Your task to perform on an android device: turn off improve location accuracy Image 0: 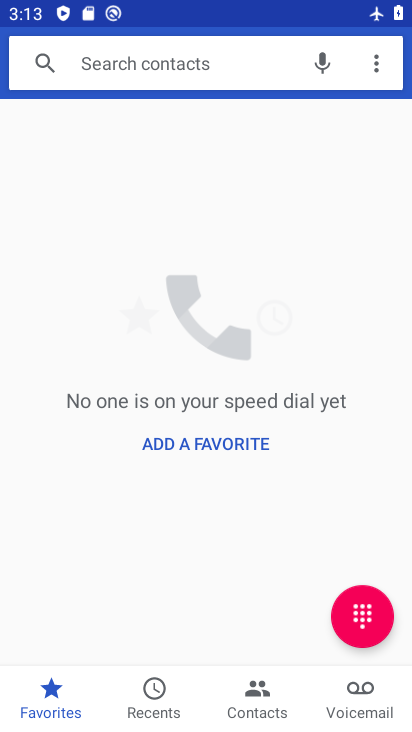
Step 0: drag from (230, 649) to (256, 25)
Your task to perform on an android device: turn off improve location accuracy Image 1: 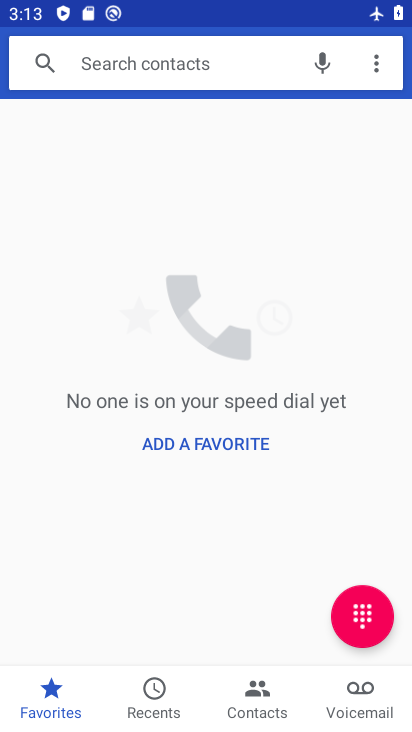
Step 1: press home button
Your task to perform on an android device: turn off improve location accuracy Image 2: 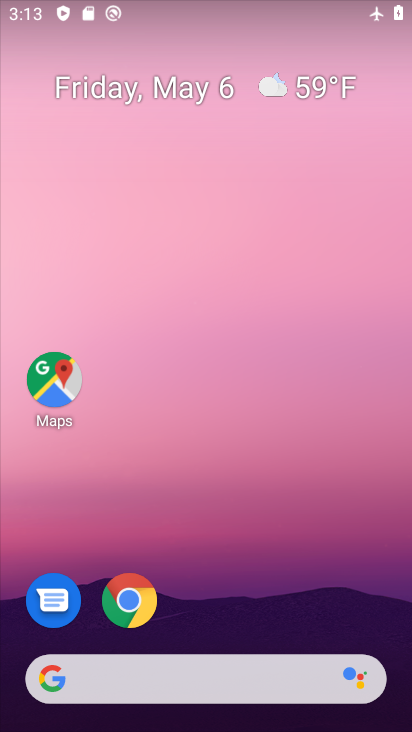
Step 2: drag from (230, 627) to (234, 22)
Your task to perform on an android device: turn off improve location accuracy Image 3: 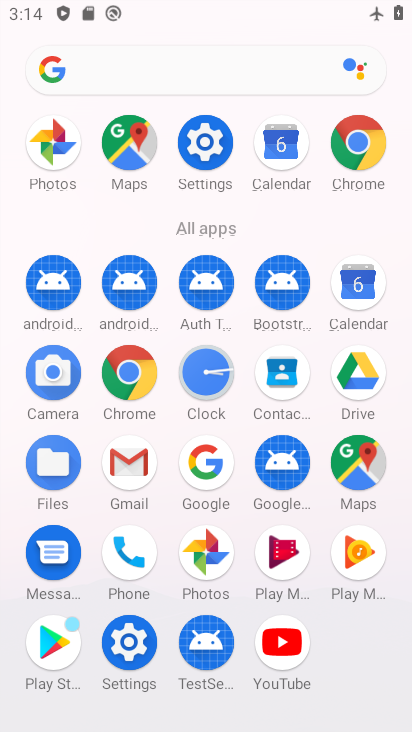
Step 3: click (211, 143)
Your task to perform on an android device: turn off improve location accuracy Image 4: 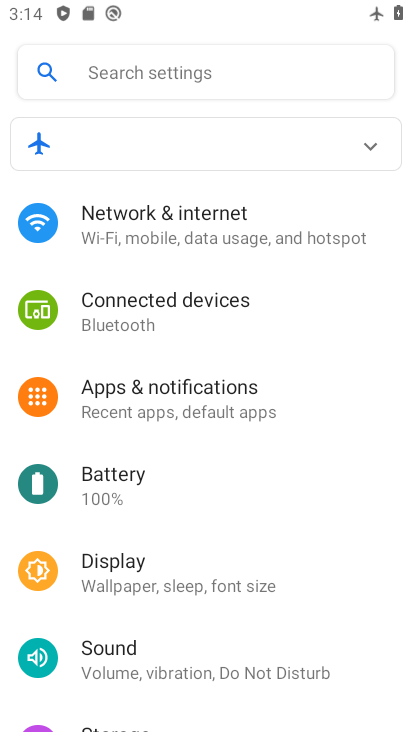
Step 4: drag from (160, 625) to (302, 189)
Your task to perform on an android device: turn off improve location accuracy Image 5: 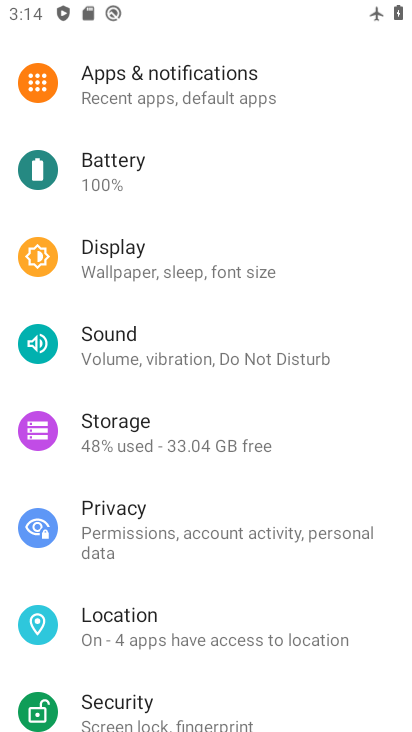
Step 5: click (166, 636)
Your task to perform on an android device: turn off improve location accuracy Image 6: 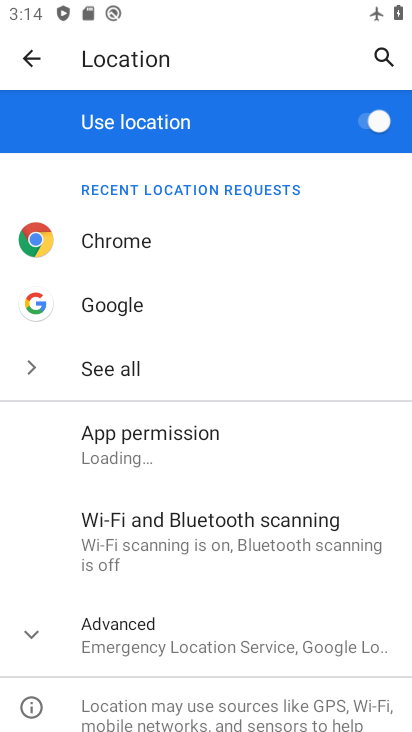
Step 6: click (193, 637)
Your task to perform on an android device: turn off improve location accuracy Image 7: 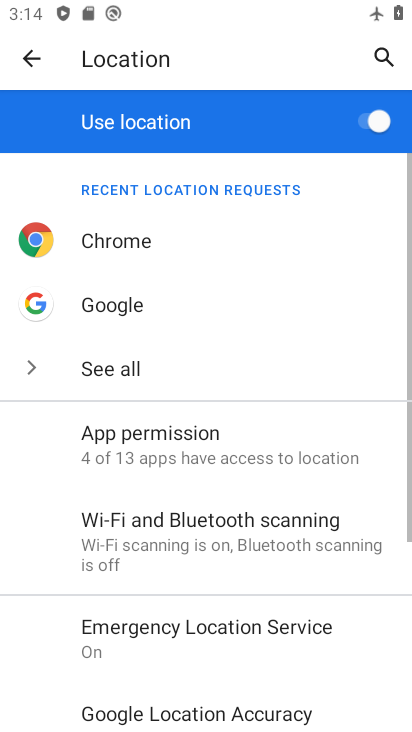
Step 7: drag from (183, 629) to (228, 292)
Your task to perform on an android device: turn off improve location accuracy Image 8: 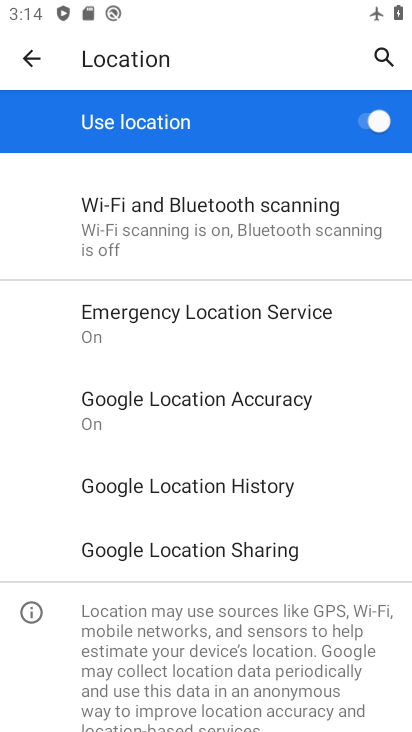
Step 8: click (210, 421)
Your task to perform on an android device: turn off improve location accuracy Image 9: 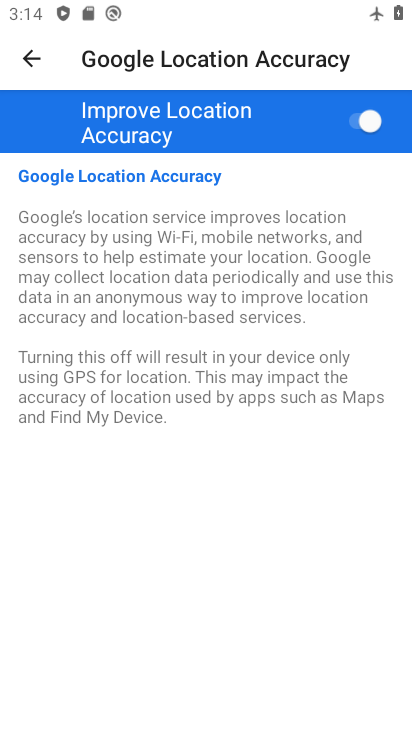
Step 9: click (358, 122)
Your task to perform on an android device: turn off improve location accuracy Image 10: 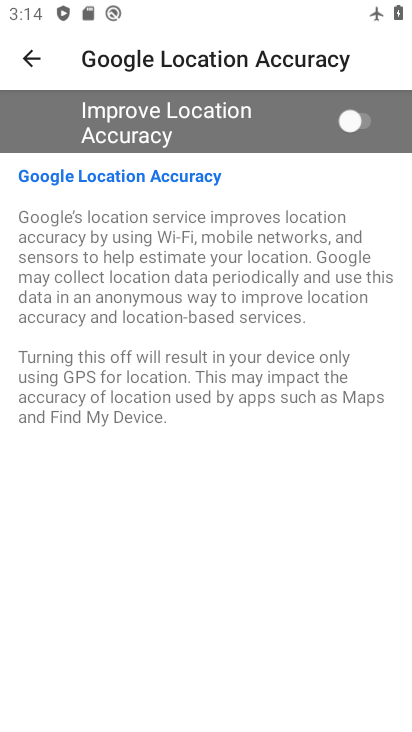
Step 10: task complete